Your task to perform on an android device: change the clock display to show seconds Image 0: 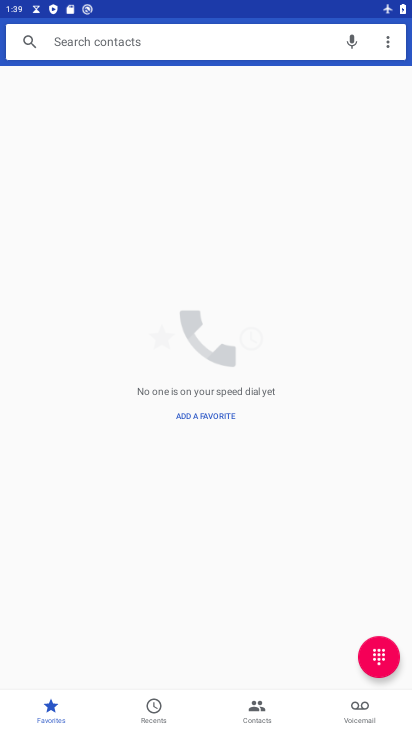
Step 0: press home button
Your task to perform on an android device: change the clock display to show seconds Image 1: 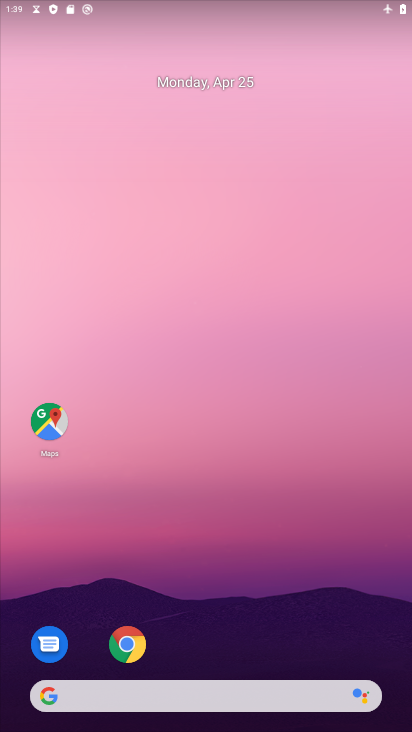
Step 1: drag from (360, 607) to (352, 19)
Your task to perform on an android device: change the clock display to show seconds Image 2: 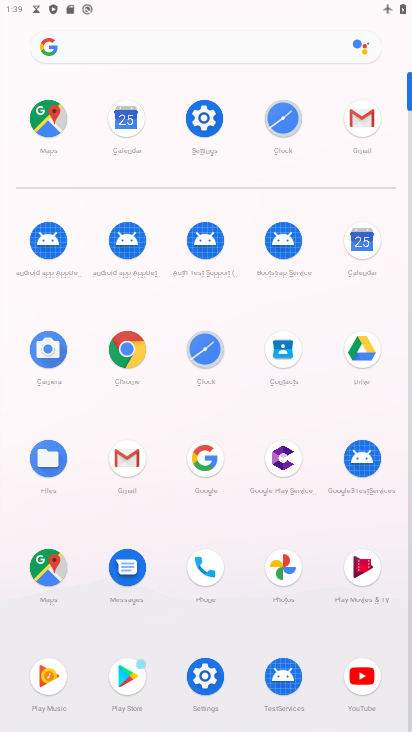
Step 2: click (283, 123)
Your task to perform on an android device: change the clock display to show seconds Image 3: 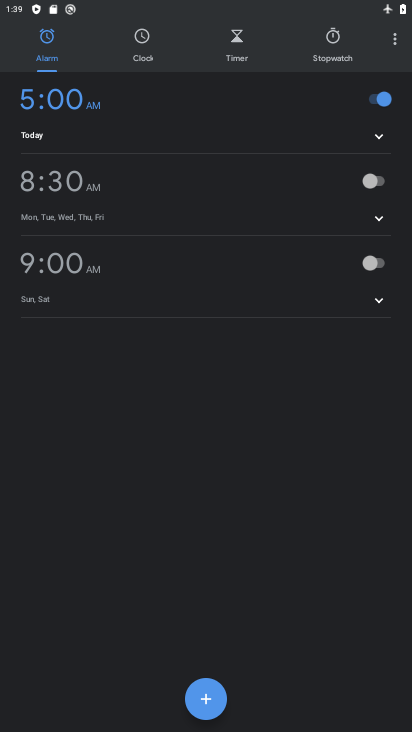
Step 3: click (390, 40)
Your task to perform on an android device: change the clock display to show seconds Image 4: 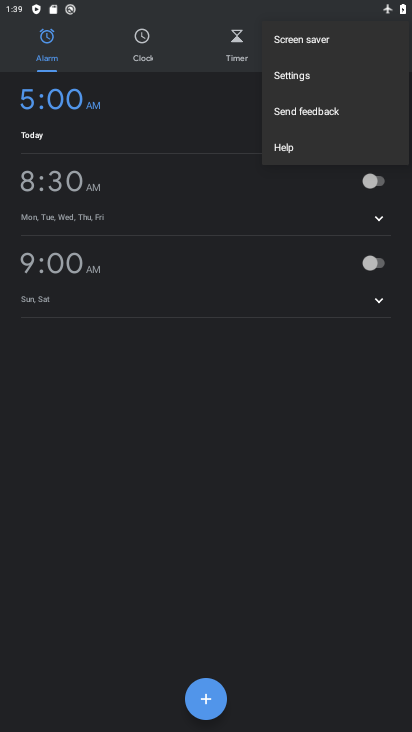
Step 4: click (305, 77)
Your task to perform on an android device: change the clock display to show seconds Image 5: 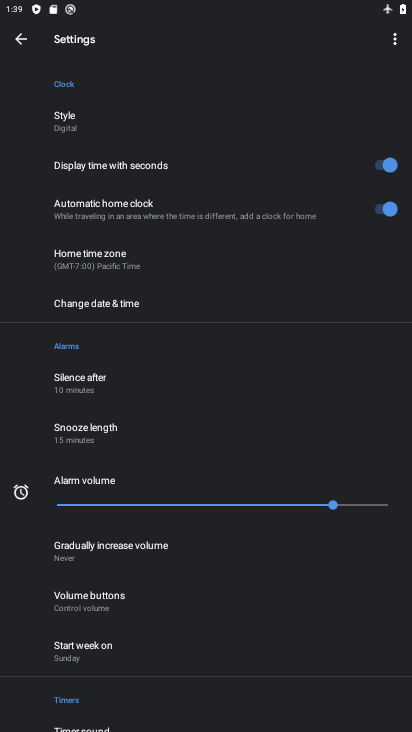
Step 5: task complete